Your task to perform on an android device: stop showing notifications on the lock screen Image 0: 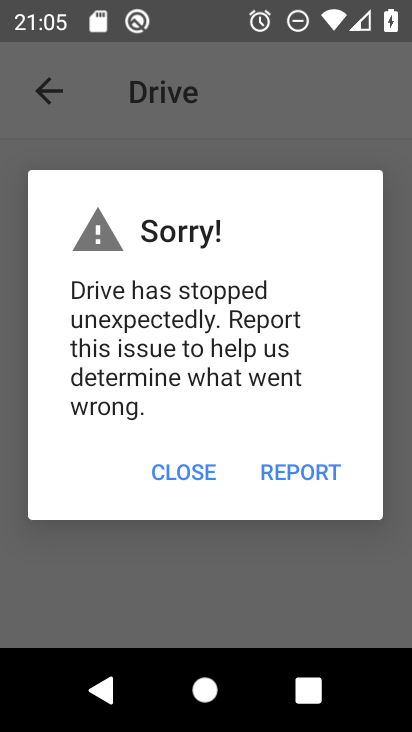
Step 0: press home button
Your task to perform on an android device: stop showing notifications on the lock screen Image 1: 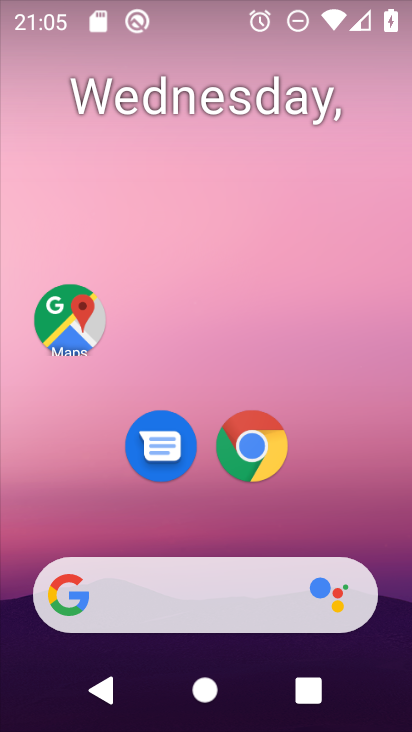
Step 1: drag from (218, 566) to (191, 117)
Your task to perform on an android device: stop showing notifications on the lock screen Image 2: 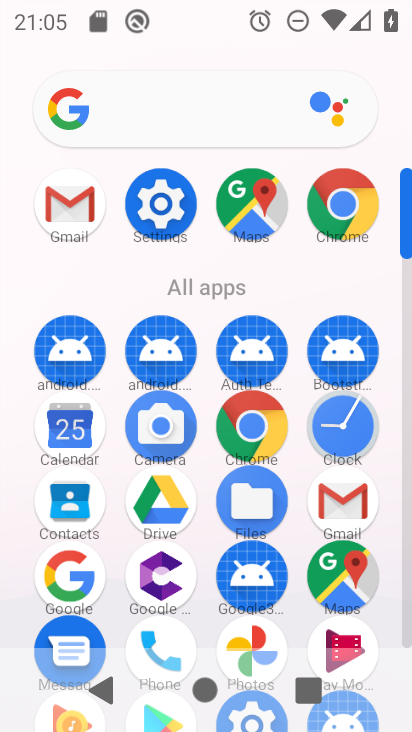
Step 2: click (142, 200)
Your task to perform on an android device: stop showing notifications on the lock screen Image 3: 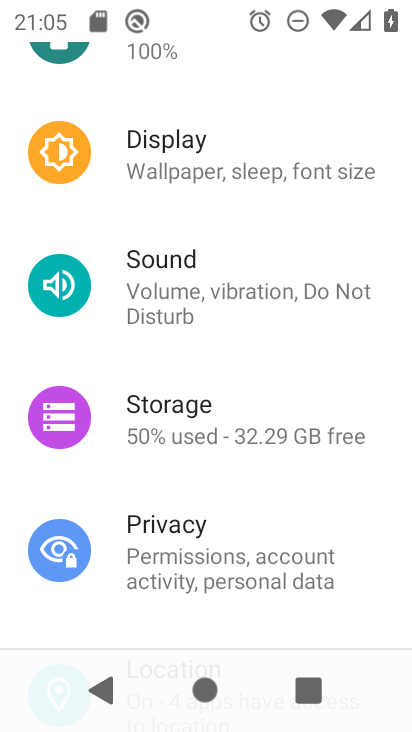
Step 3: drag from (119, 264) to (148, 478)
Your task to perform on an android device: stop showing notifications on the lock screen Image 4: 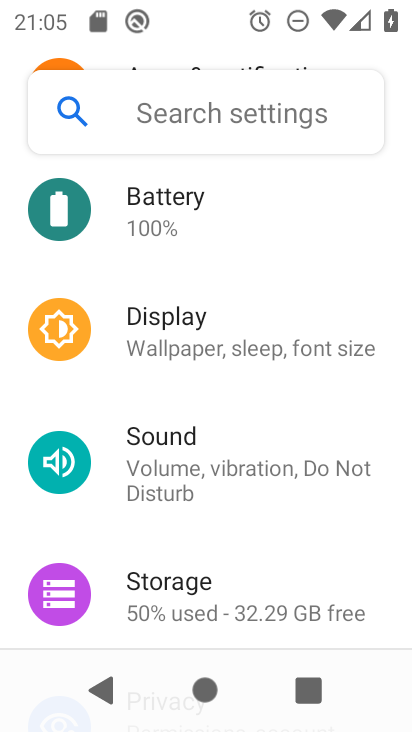
Step 4: drag from (149, 285) to (177, 685)
Your task to perform on an android device: stop showing notifications on the lock screen Image 5: 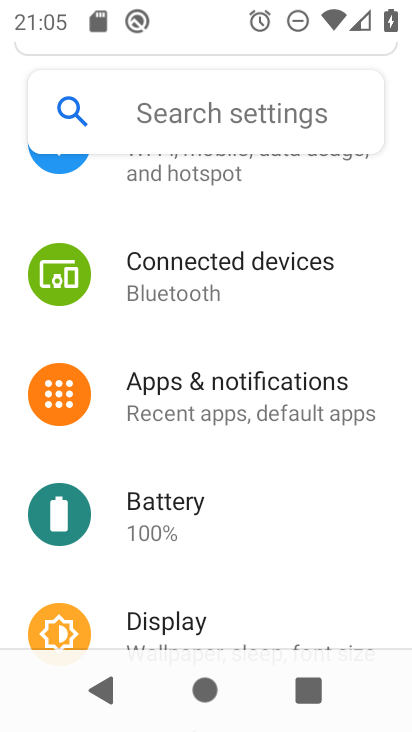
Step 5: click (197, 394)
Your task to perform on an android device: stop showing notifications on the lock screen Image 6: 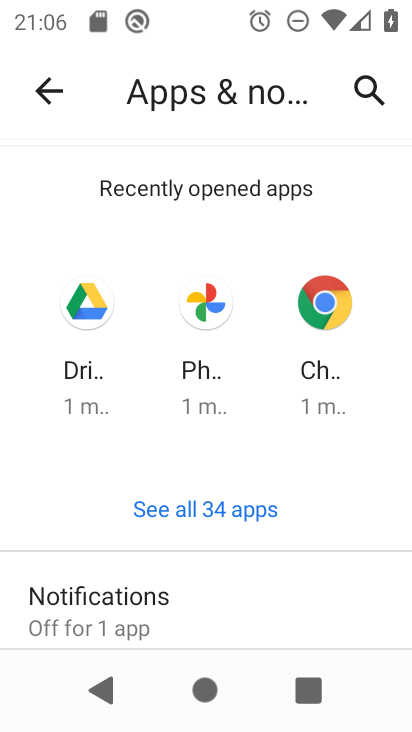
Step 6: drag from (148, 567) to (199, 144)
Your task to perform on an android device: stop showing notifications on the lock screen Image 7: 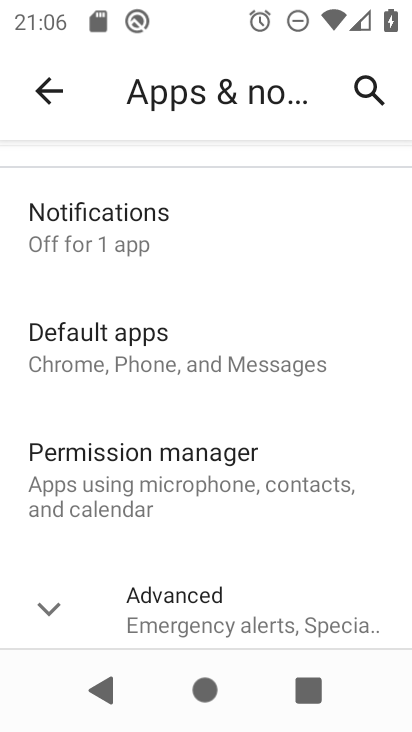
Step 7: click (162, 231)
Your task to perform on an android device: stop showing notifications on the lock screen Image 8: 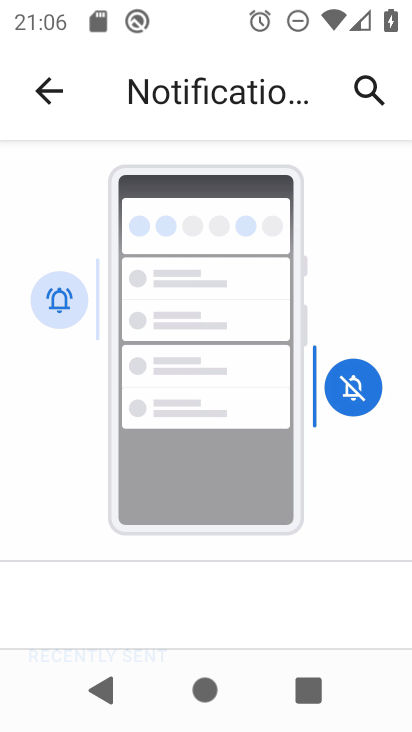
Step 8: drag from (181, 511) to (193, 68)
Your task to perform on an android device: stop showing notifications on the lock screen Image 9: 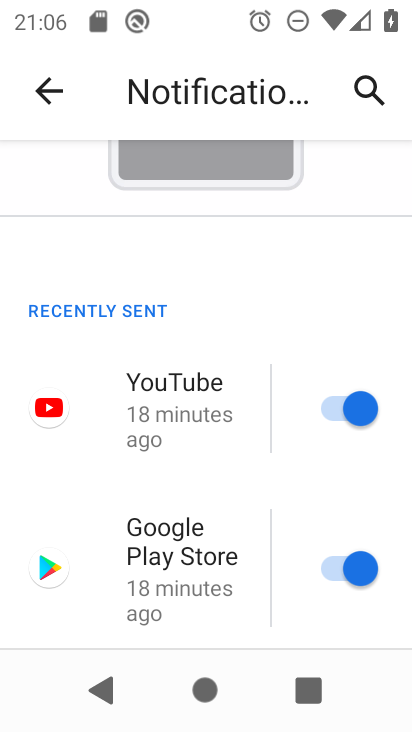
Step 9: drag from (184, 498) to (202, 155)
Your task to perform on an android device: stop showing notifications on the lock screen Image 10: 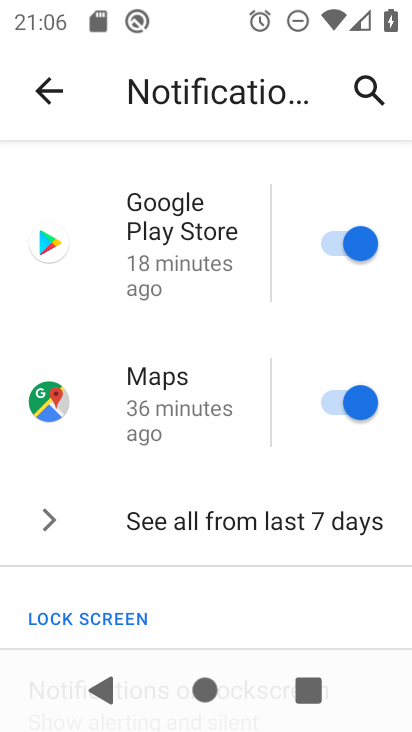
Step 10: drag from (141, 547) to (239, 60)
Your task to perform on an android device: stop showing notifications on the lock screen Image 11: 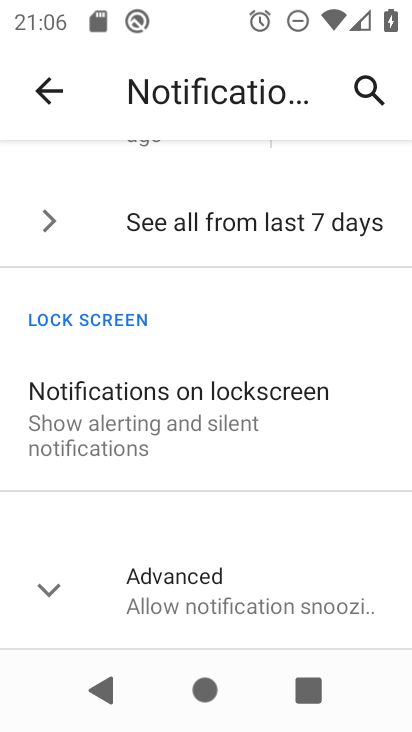
Step 11: click (216, 394)
Your task to perform on an android device: stop showing notifications on the lock screen Image 12: 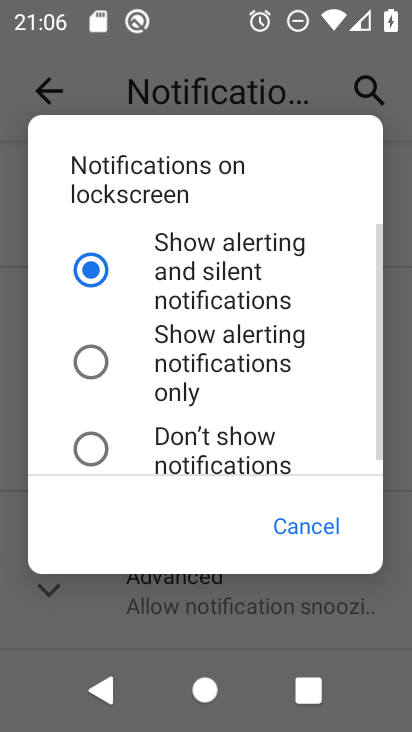
Step 12: click (199, 445)
Your task to perform on an android device: stop showing notifications on the lock screen Image 13: 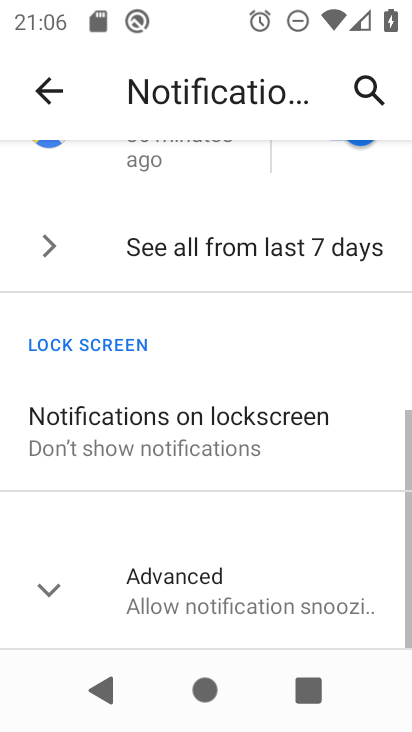
Step 13: task complete